Your task to perform on an android device: Open the Play Movies app and select the watchlist tab. Image 0: 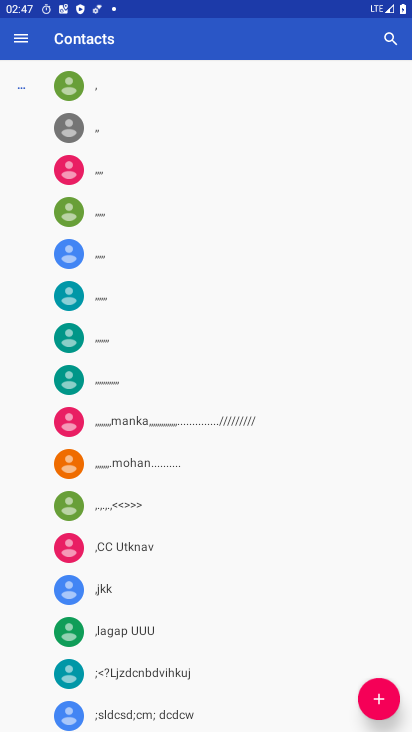
Step 0: press home button
Your task to perform on an android device: Open the Play Movies app and select the watchlist tab. Image 1: 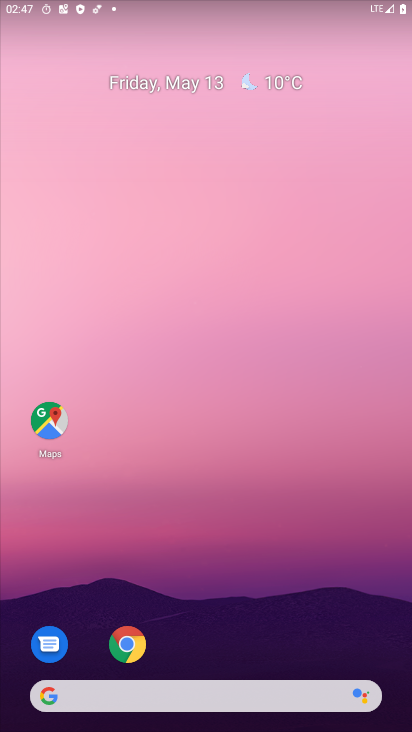
Step 1: drag from (314, 629) to (290, 30)
Your task to perform on an android device: Open the Play Movies app and select the watchlist tab. Image 2: 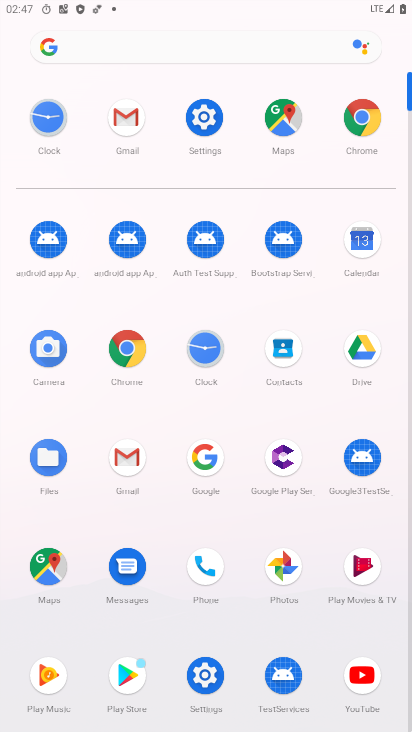
Step 2: click (368, 569)
Your task to perform on an android device: Open the Play Movies app and select the watchlist tab. Image 3: 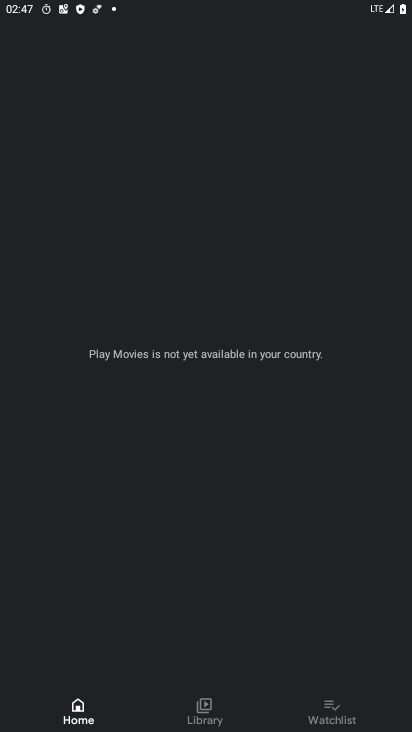
Step 3: click (339, 712)
Your task to perform on an android device: Open the Play Movies app and select the watchlist tab. Image 4: 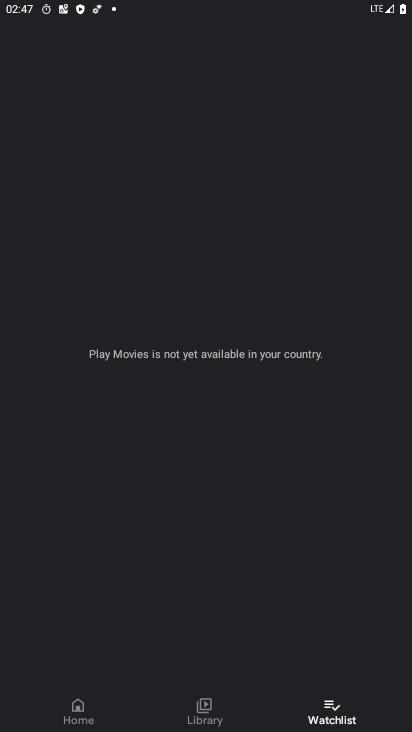
Step 4: task complete